Your task to perform on an android device: turn off notifications settings in the gmail app Image 0: 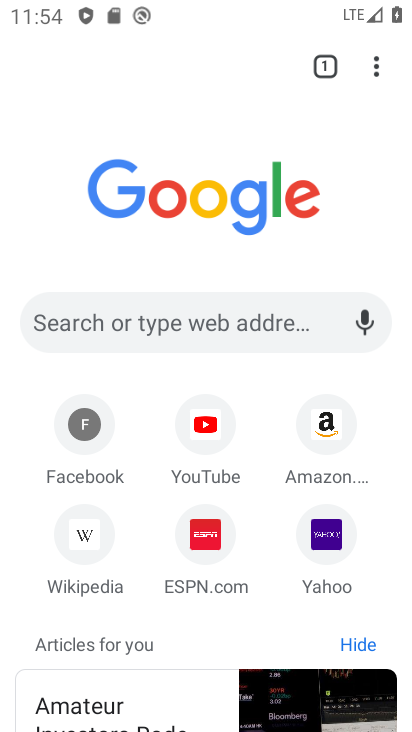
Step 0: press home button
Your task to perform on an android device: turn off notifications settings in the gmail app Image 1: 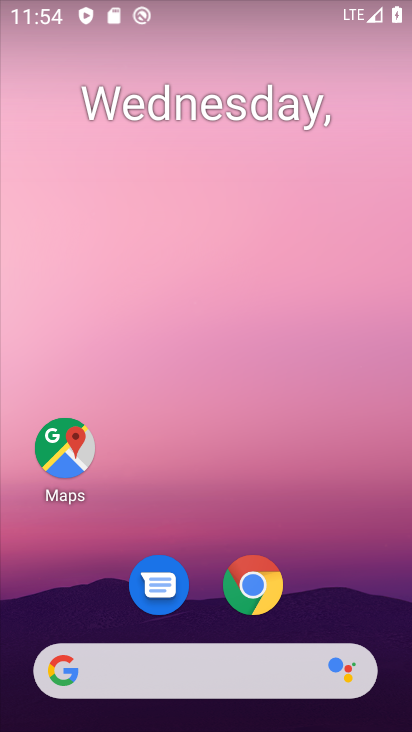
Step 1: drag from (230, 492) to (276, 1)
Your task to perform on an android device: turn off notifications settings in the gmail app Image 2: 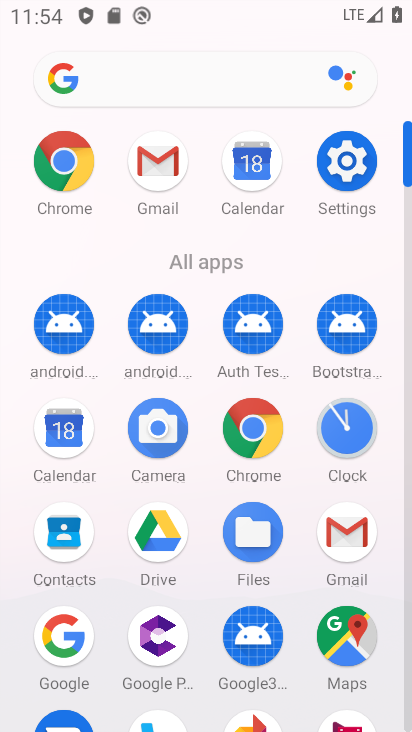
Step 2: click (169, 154)
Your task to perform on an android device: turn off notifications settings in the gmail app Image 3: 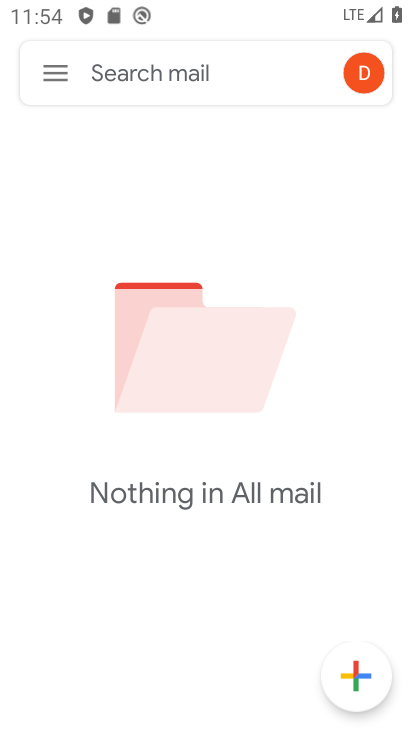
Step 3: click (62, 67)
Your task to perform on an android device: turn off notifications settings in the gmail app Image 4: 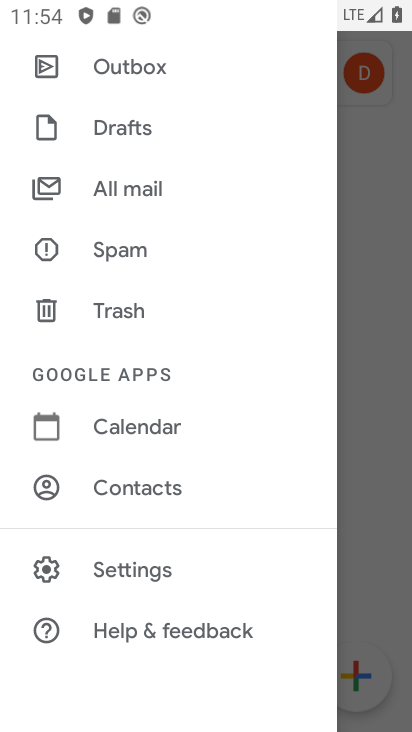
Step 4: click (113, 562)
Your task to perform on an android device: turn off notifications settings in the gmail app Image 5: 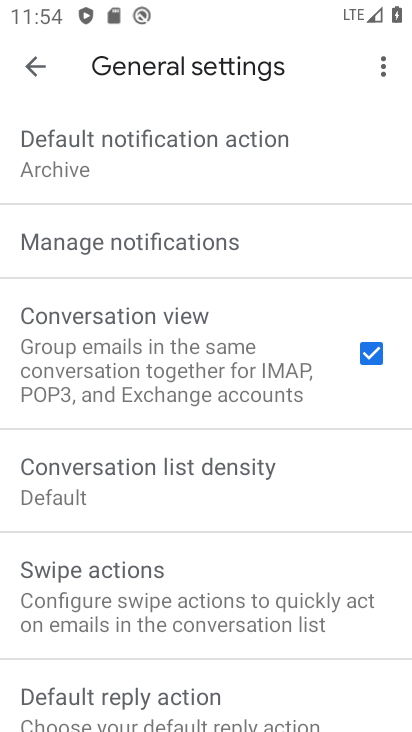
Step 5: click (246, 238)
Your task to perform on an android device: turn off notifications settings in the gmail app Image 6: 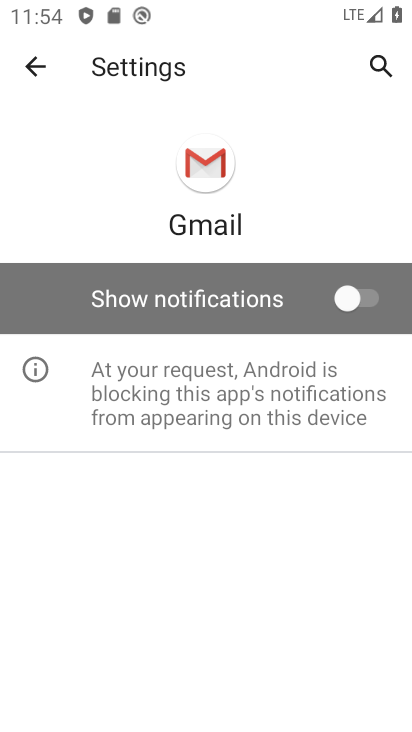
Step 6: task complete